Your task to perform on an android device: Go to accessibility settings Image 0: 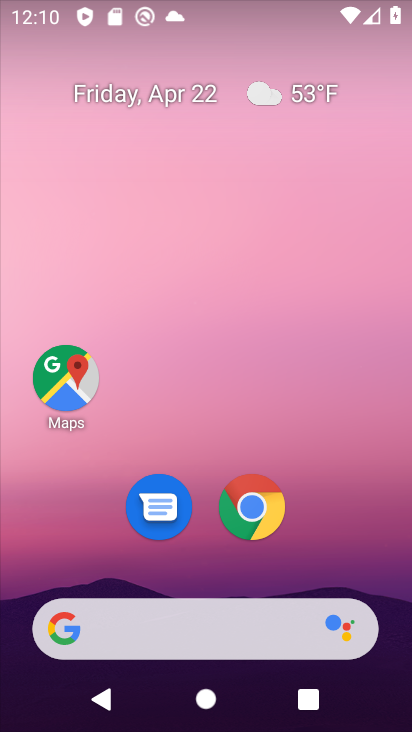
Step 0: drag from (193, 604) to (132, 6)
Your task to perform on an android device: Go to accessibility settings Image 1: 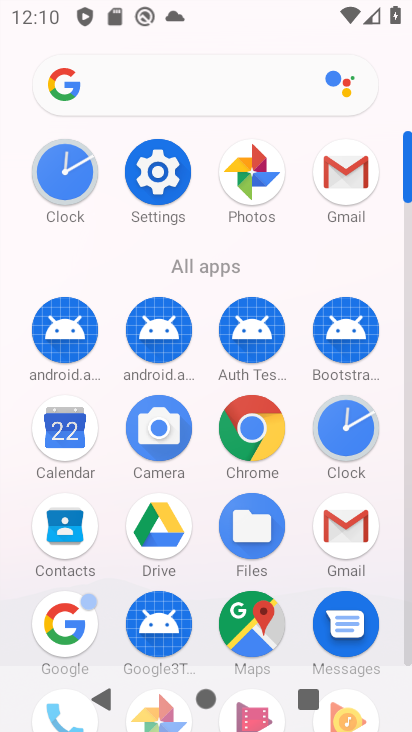
Step 1: click (149, 177)
Your task to perform on an android device: Go to accessibility settings Image 2: 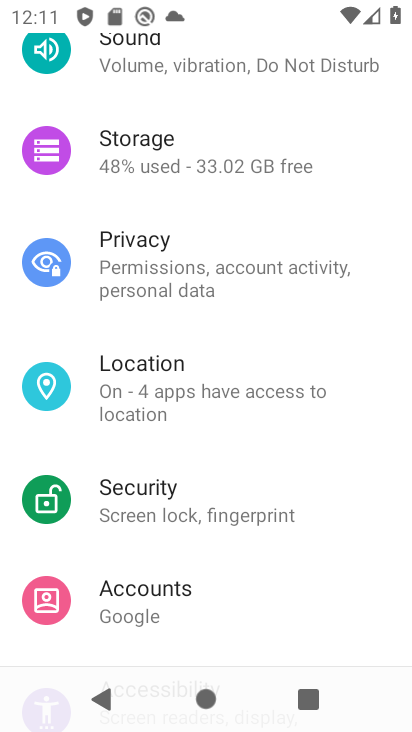
Step 2: drag from (165, 523) to (149, 79)
Your task to perform on an android device: Go to accessibility settings Image 3: 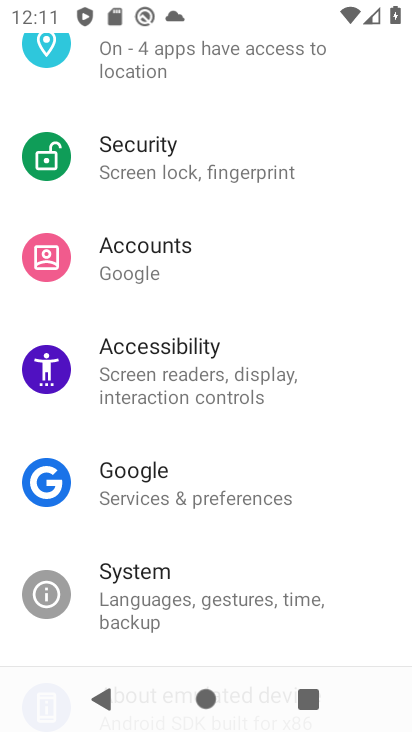
Step 3: click (156, 369)
Your task to perform on an android device: Go to accessibility settings Image 4: 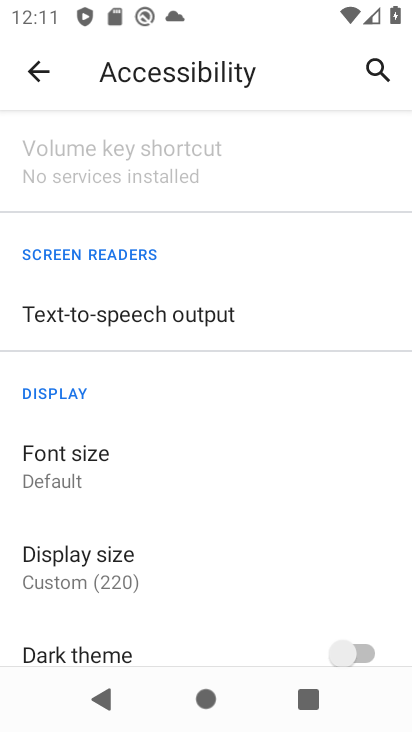
Step 4: task complete